Your task to perform on an android device: Open Chrome and go to settings Image 0: 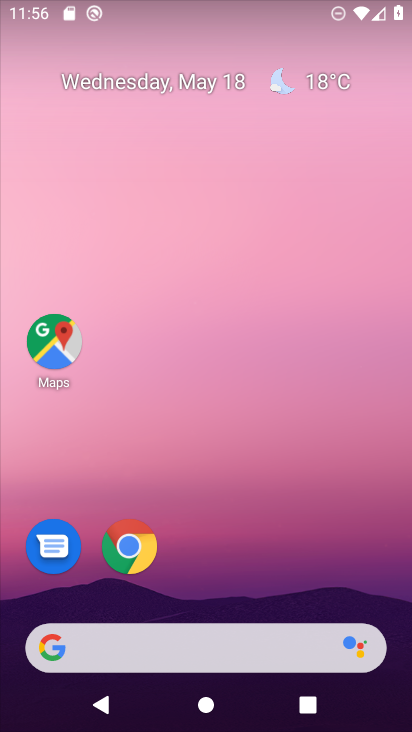
Step 0: click (132, 547)
Your task to perform on an android device: Open Chrome and go to settings Image 1: 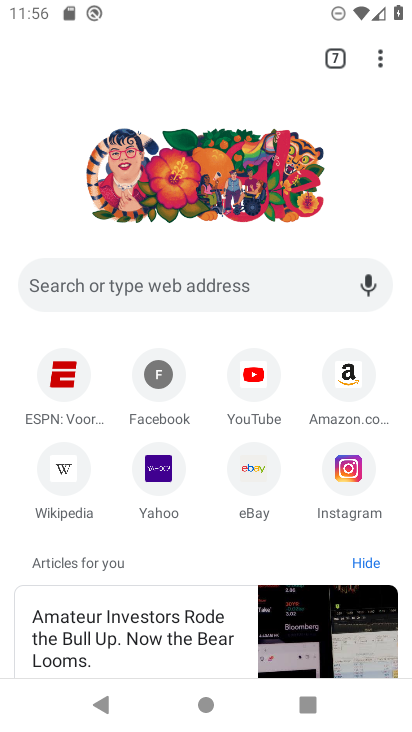
Step 1: click (381, 70)
Your task to perform on an android device: Open Chrome and go to settings Image 2: 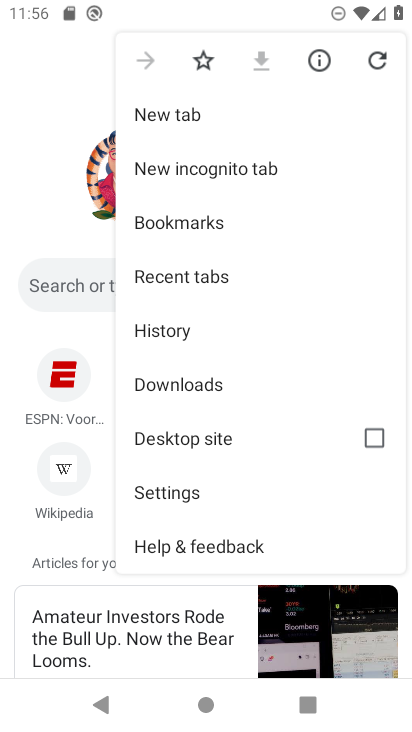
Step 2: click (189, 494)
Your task to perform on an android device: Open Chrome and go to settings Image 3: 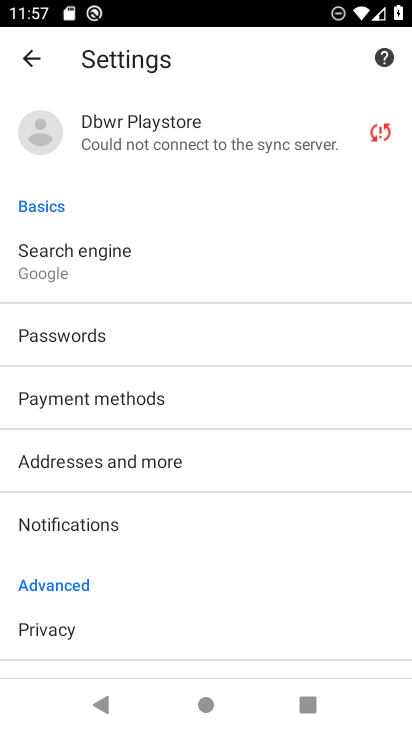
Step 3: task complete